Your task to perform on an android device: Open Yahoo.com Image 0: 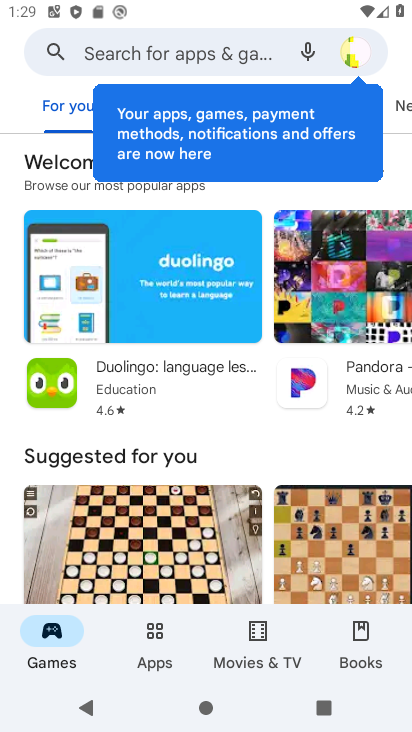
Step 0: press home button
Your task to perform on an android device: Open Yahoo.com Image 1: 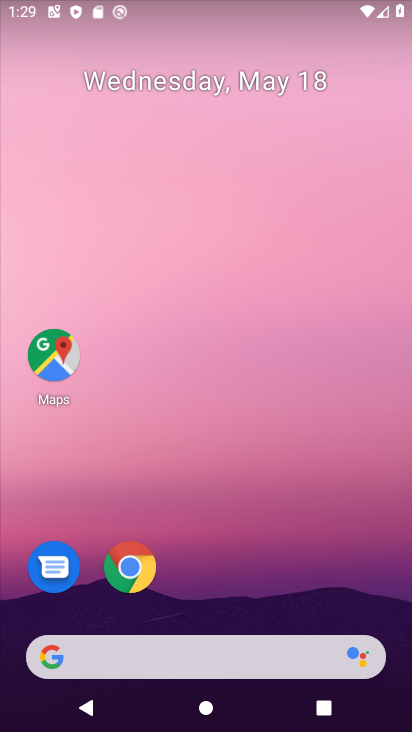
Step 1: click (115, 570)
Your task to perform on an android device: Open Yahoo.com Image 2: 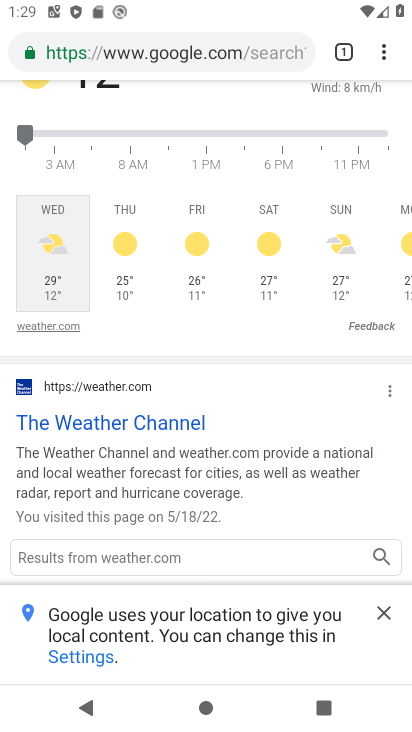
Step 2: click (186, 51)
Your task to perform on an android device: Open Yahoo.com Image 3: 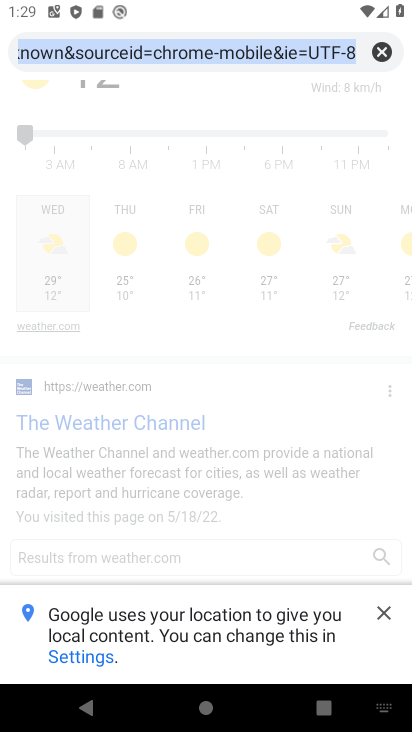
Step 3: type "yahoo.com"
Your task to perform on an android device: Open Yahoo.com Image 4: 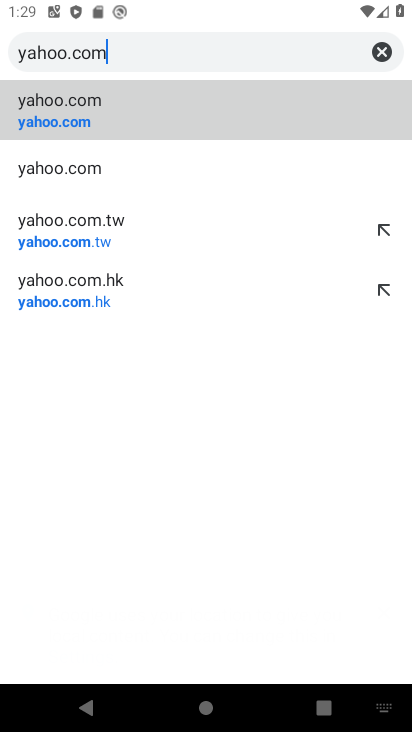
Step 4: click (81, 121)
Your task to perform on an android device: Open Yahoo.com Image 5: 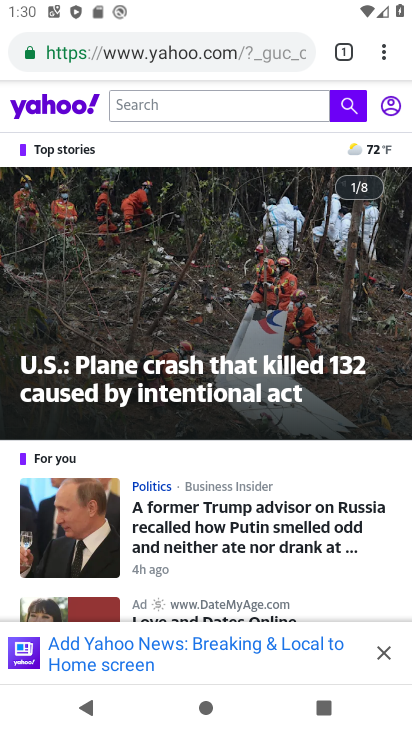
Step 5: task complete